Your task to perform on an android device: check data usage Image 0: 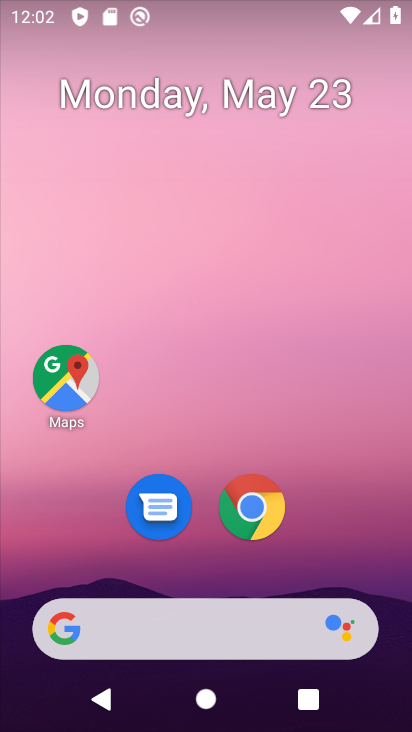
Step 0: drag from (223, 503) to (177, 9)
Your task to perform on an android device: check data usage Image 1: 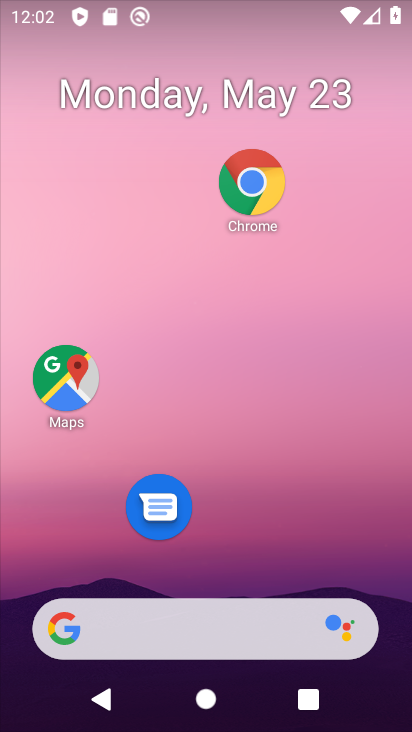
Step 1: drag from (239, 521) to (209, 0)
Your task to perform on an android device: check data usage Image 2: 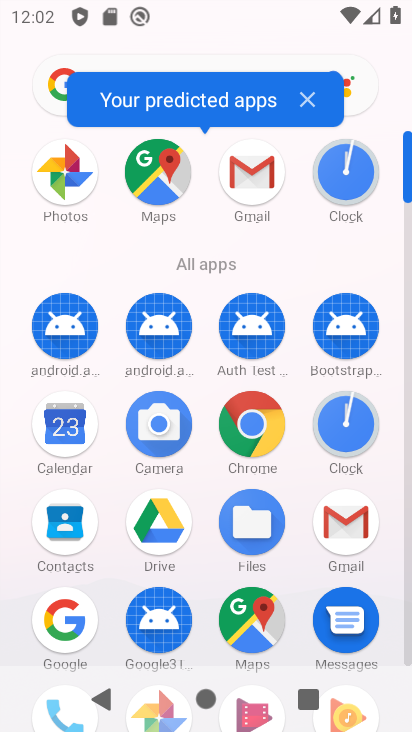
Step 2: drag from (285, 627) to (328, 82)
Your task to perform on an android device: check data usage Image 3: 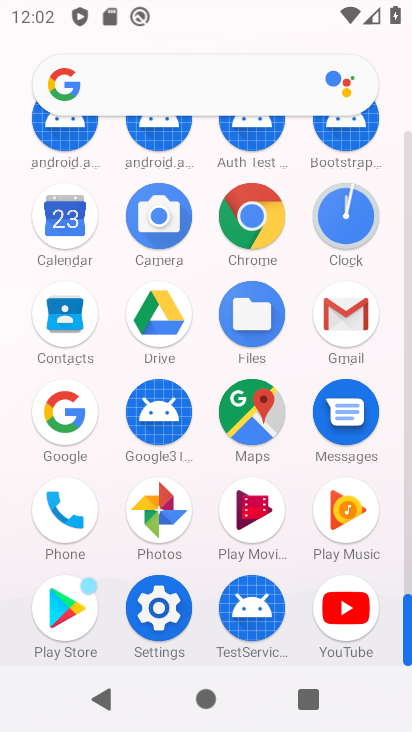
Step 3: click (174, 590)
Your task to perform on an android device: check data usage Image 4: 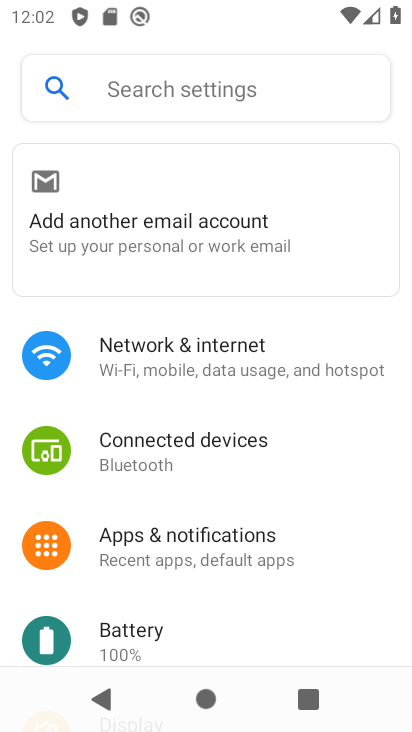
Step 4: click (329, 352)
Your task to perform on an android device: check data usage Image 5: 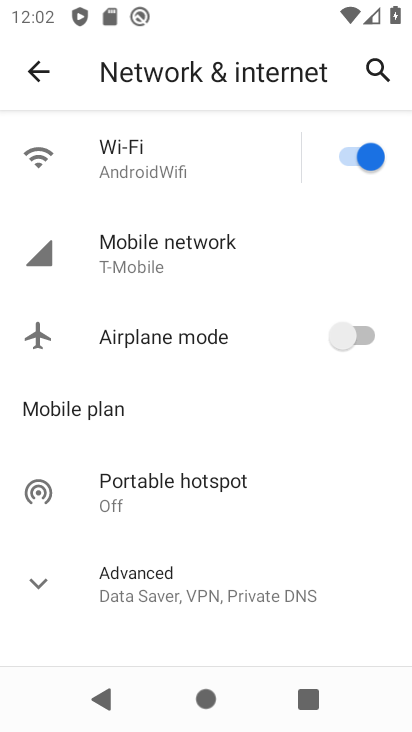
Step 5: click (151, 246)
Your task to perform on an android device: check data usage Image 6: 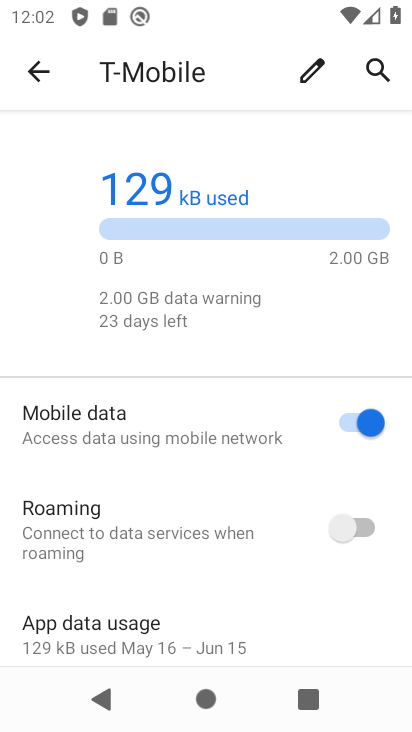
Step 6: task complete